Your task to perform on an android device: open app "Upside-Cash back on gas & food" (install if not already installed), go to login, and select forgot password Image 0: 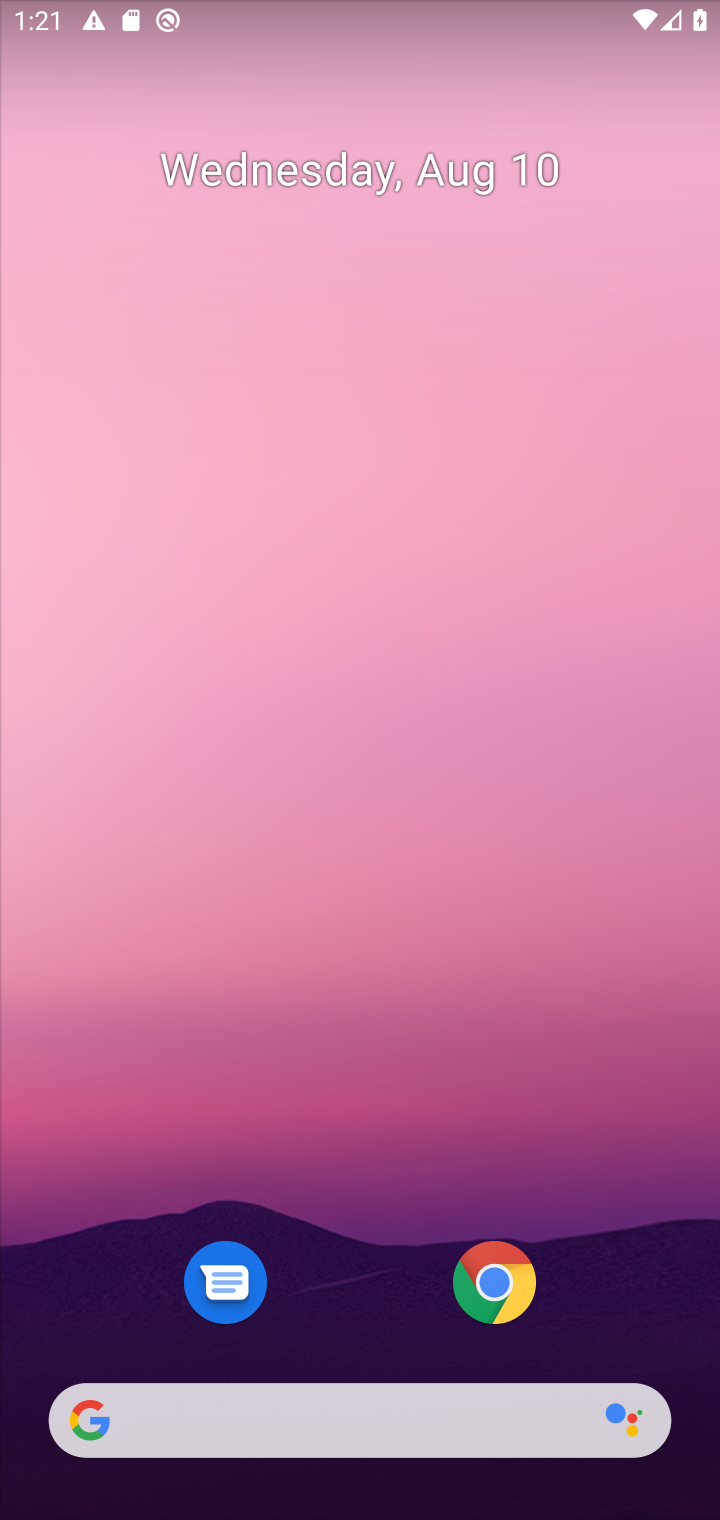
Step 0: drag from (340, 770) to (277, 183)
Your task to perform on an android device: open app "Upside-Cash back on gas & food" (install if not already installed), go to login, and select forgot password Image 1: 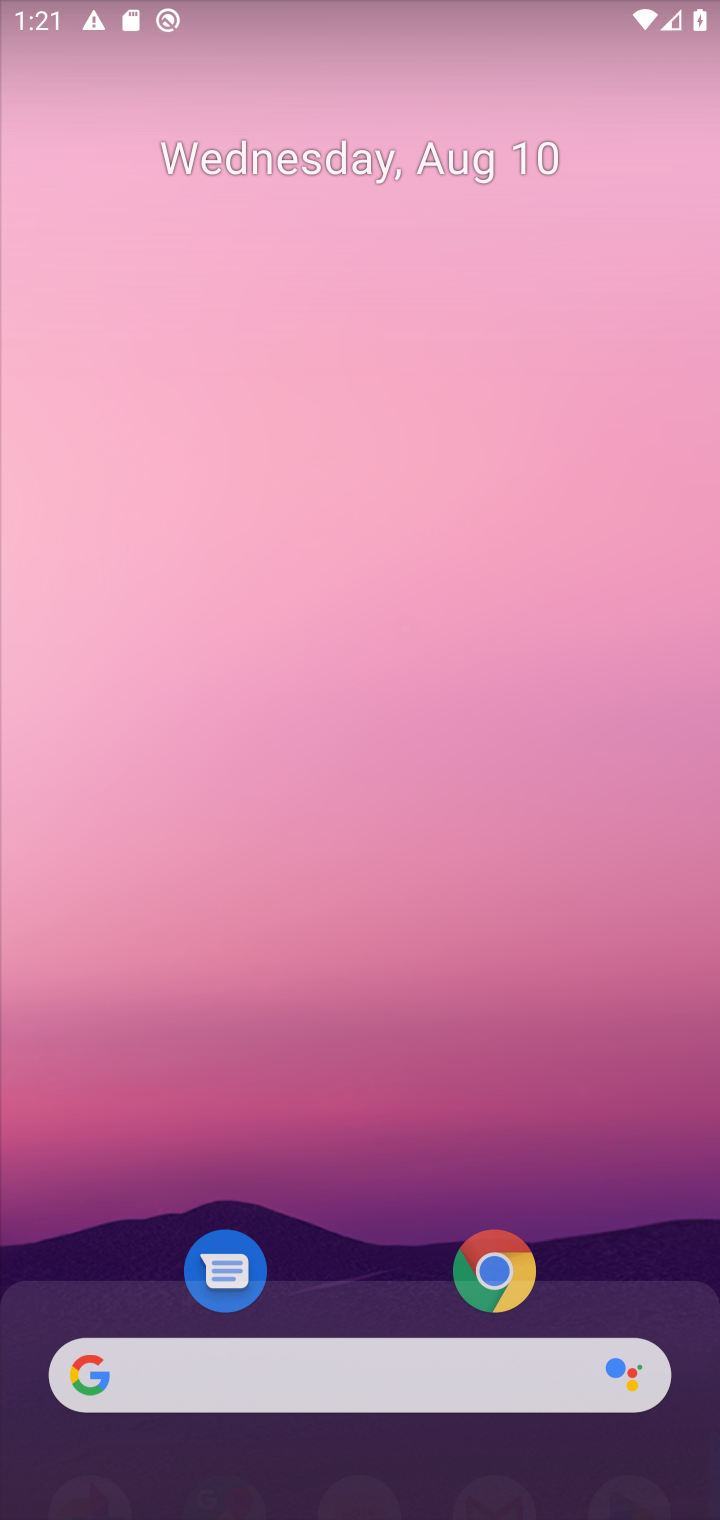
Step 1: drag from (364, 1320) to (121, 20)
Your task to perform on an android device: open app "Upside-Cash back on gas & food" (install if not already installed), go to login, and select forgot password Image 2: 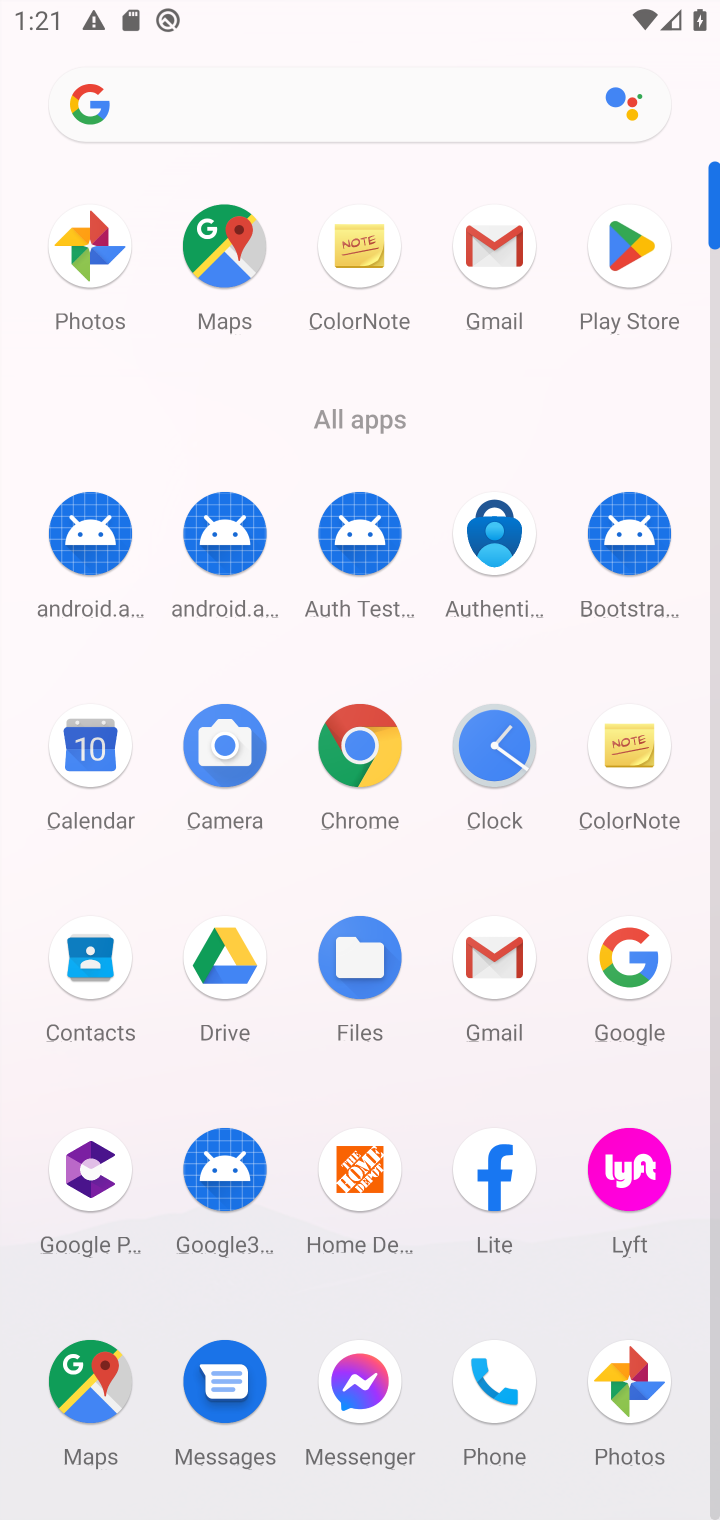
Step 2: drag from (282, 1320) to (269, 227)
Your task to perform on an android device: open app "Upside-Cash back on gas & food" (install if not already installed), go to login, and select forgot password Image 3: 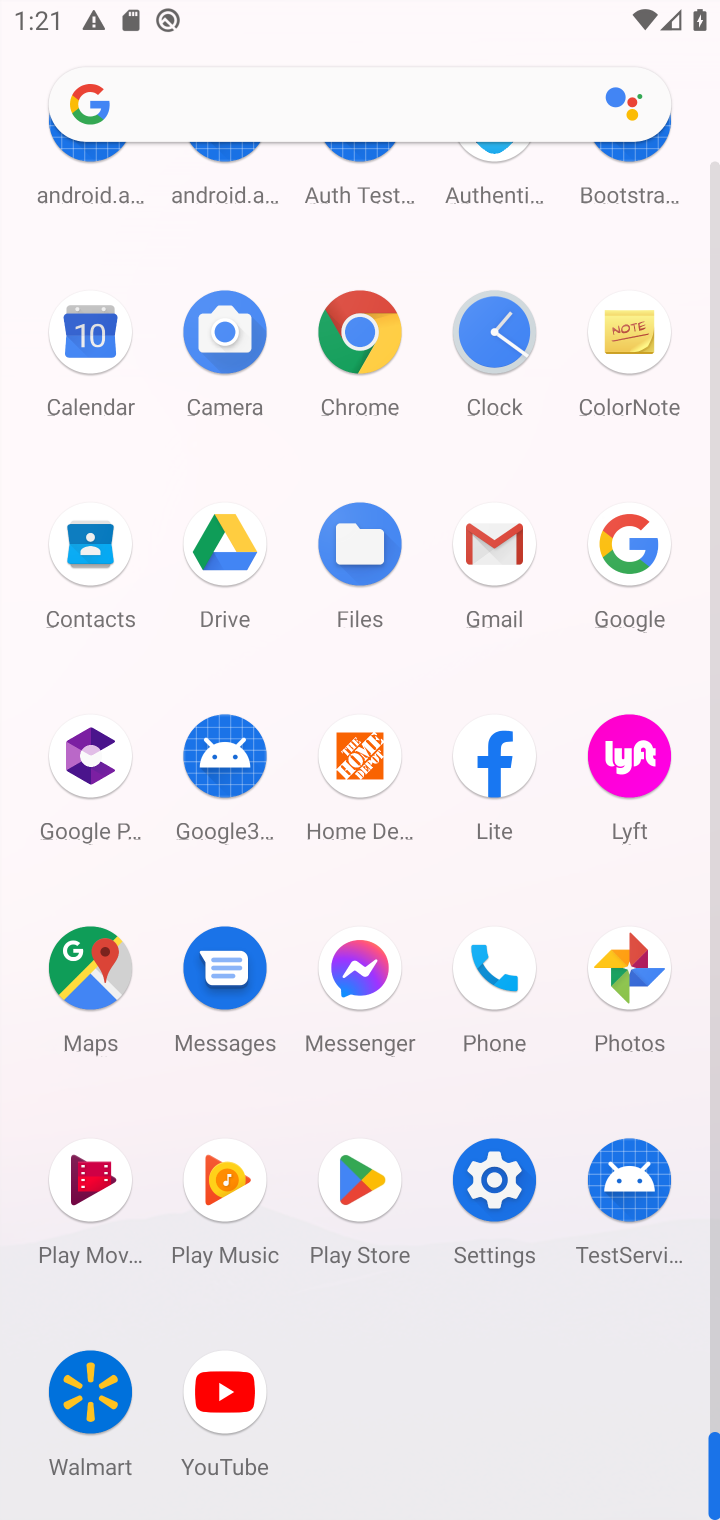
Step 3: click (366, 1176)
Your task to perform on an android device: open app "Upside-Cash back on gas & food" (install if not already installed), go to login, and select forgot password Image 4: 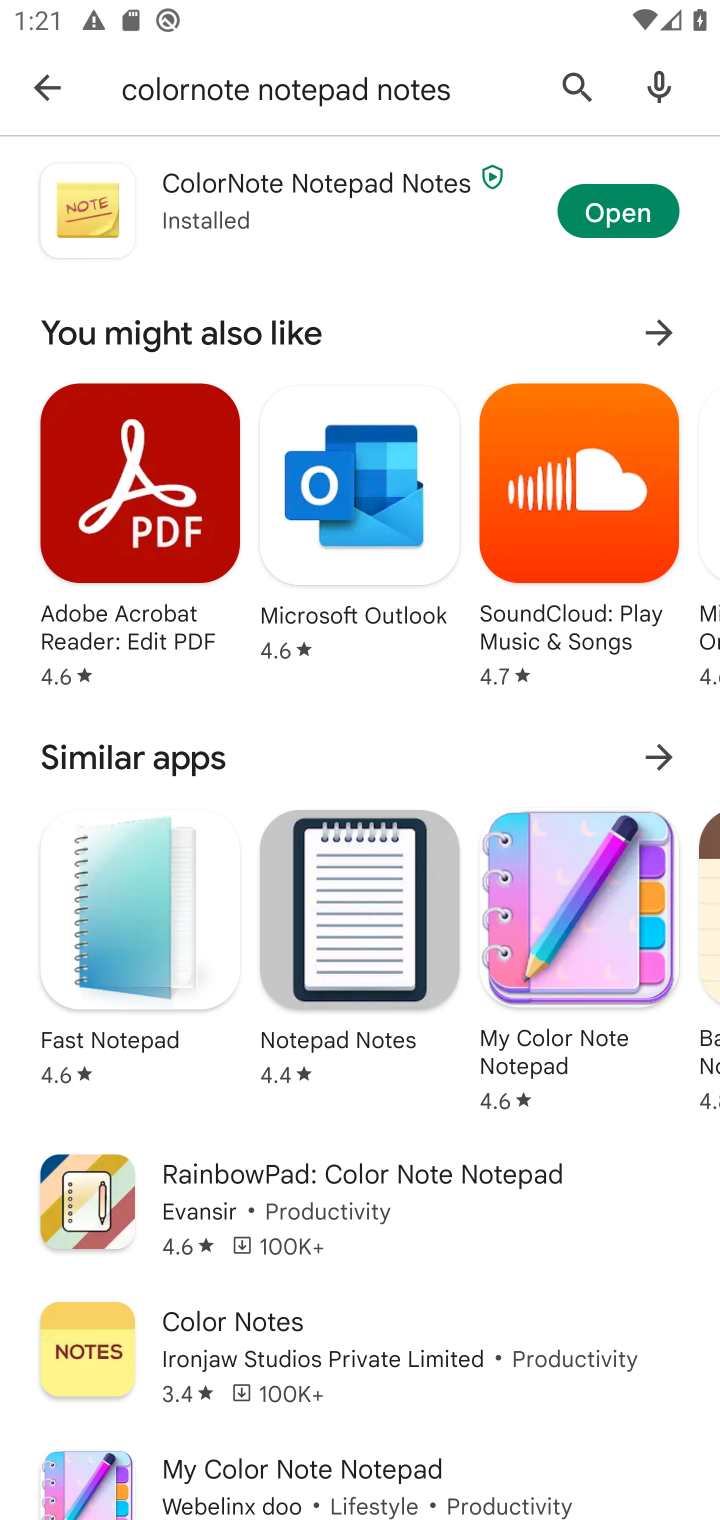
Step 4: click (59, 75)
Your task to perform on an android device: open app "Upside-Cash back on gas & food" (install if not already installed), go to login, and select forgot password Image 5: 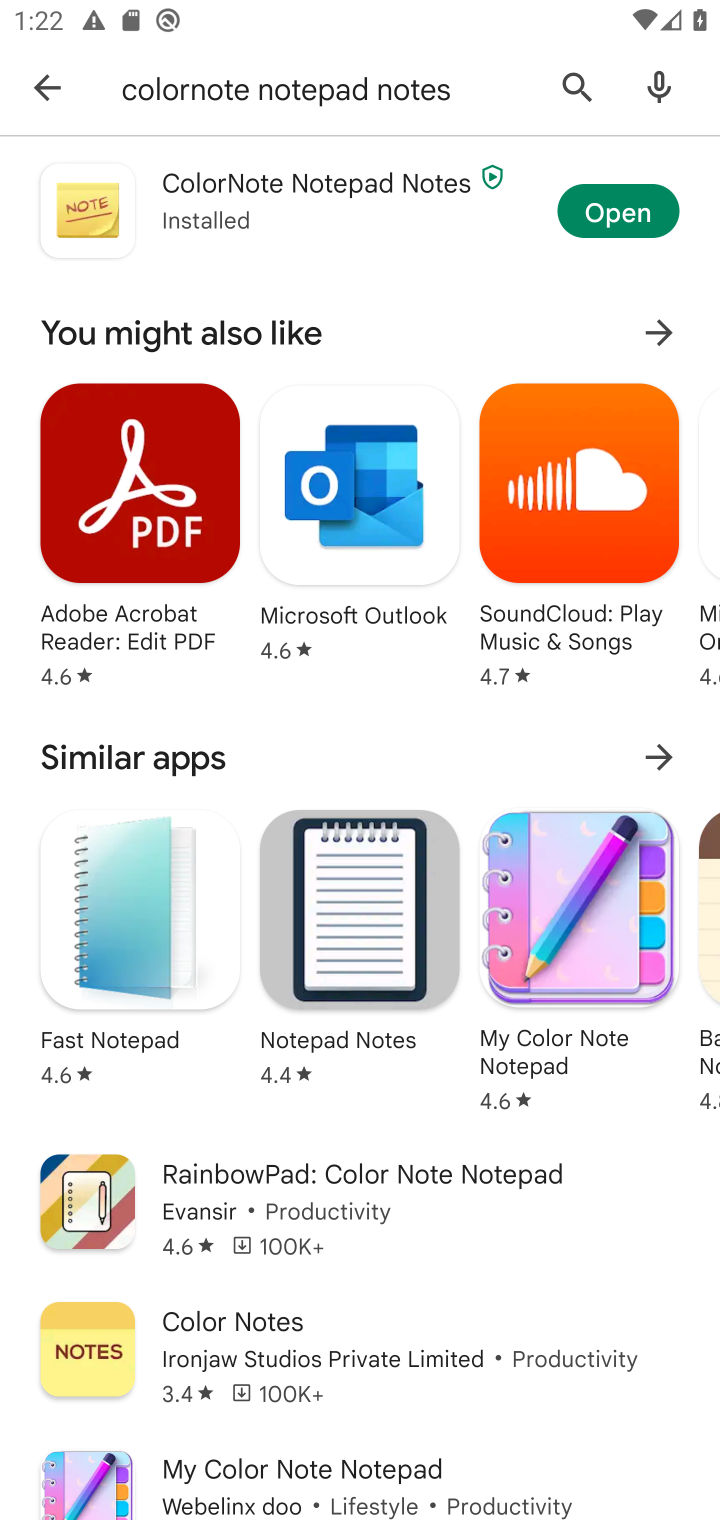
Step 5: click (562, 75)
Your task to perform on an android device: open app "Upside-Cash back on gas & food" (install if not already installed), go to login, and select forgot password Image 6: 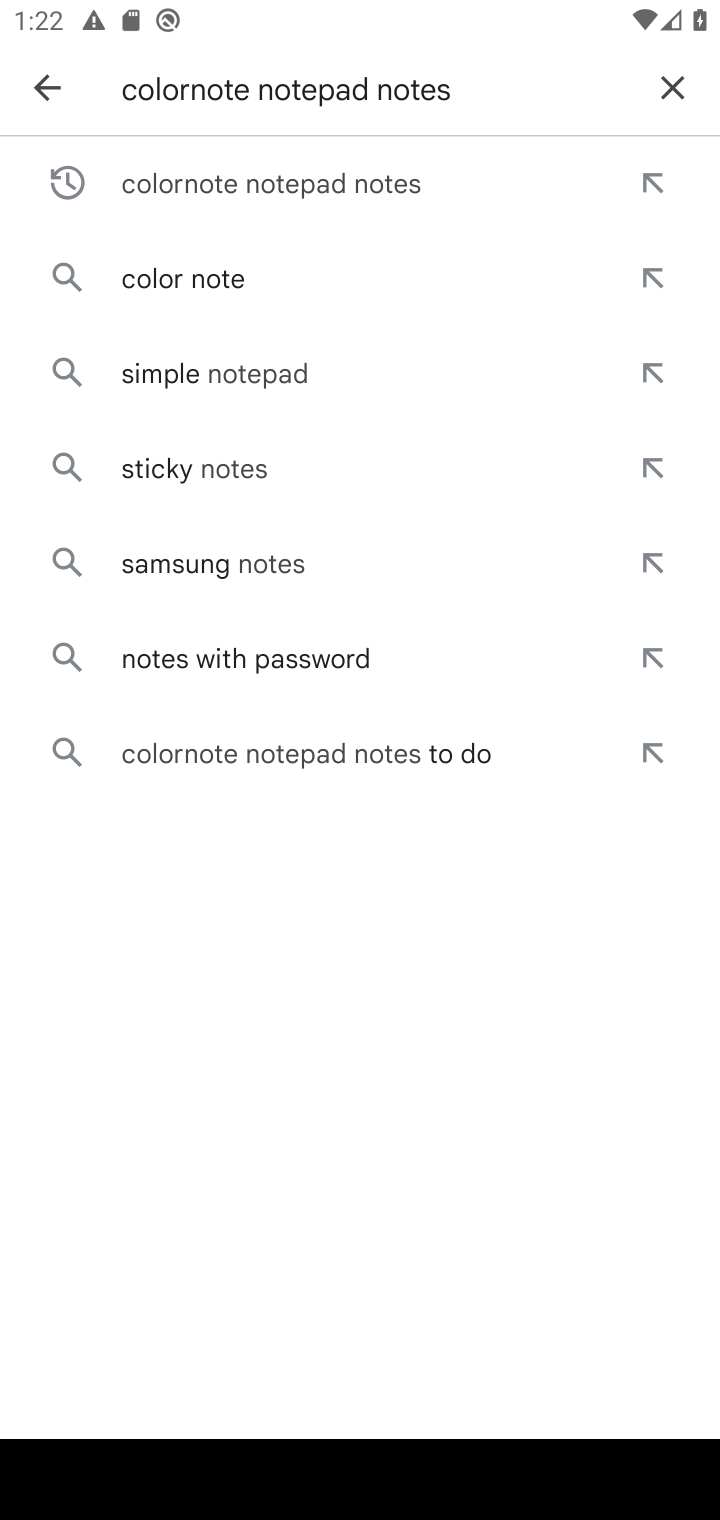
Step 6: click (658, 86)
Your task to perform on an android device: open app "Upside-Cash back on gas & food" (install if not already installed), go to login, and select forgot password Image 7: 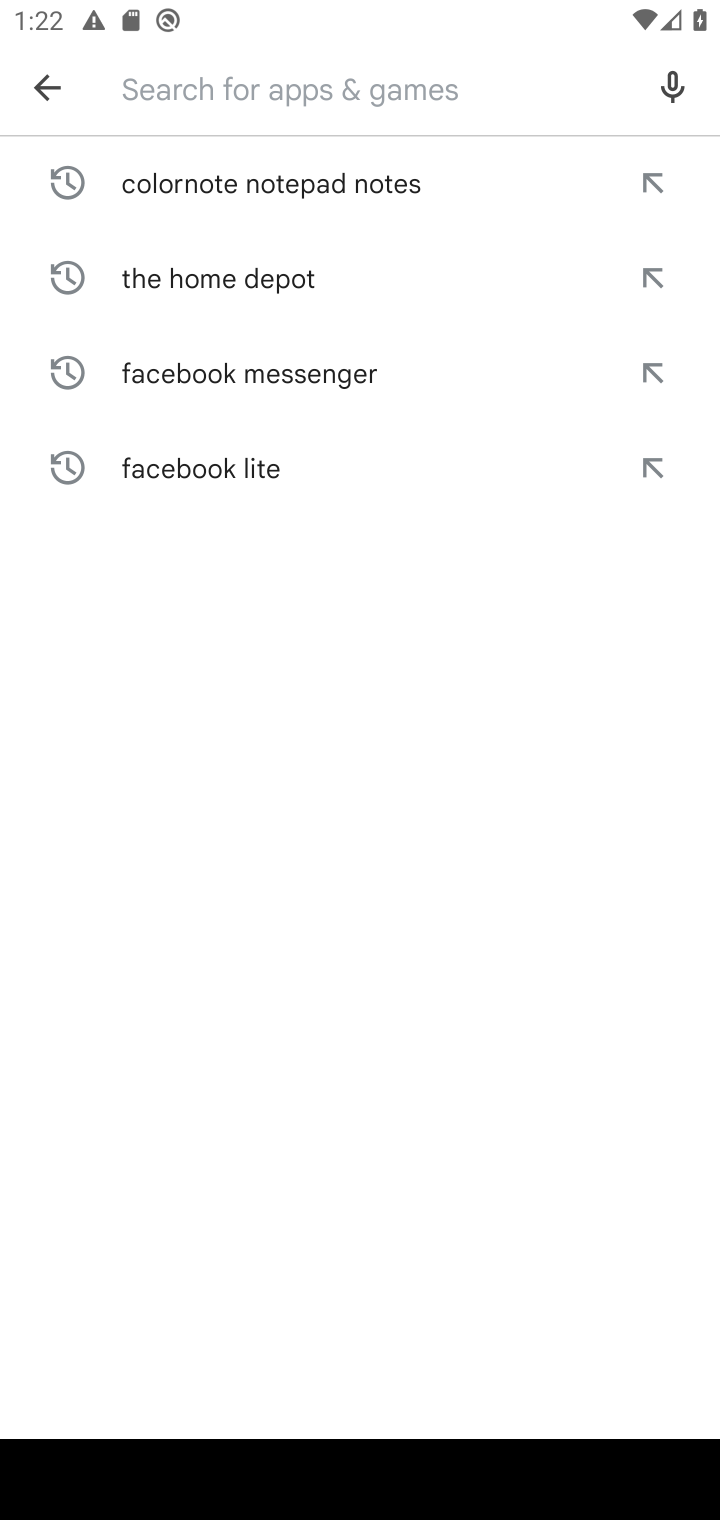
Step 7: type "Upside-Cash back on gas & food"
Your task to perform on an android device: open app "Upside-Cash back on gas & food" (install if not already installed), go to login, and select forgot password Image 8: 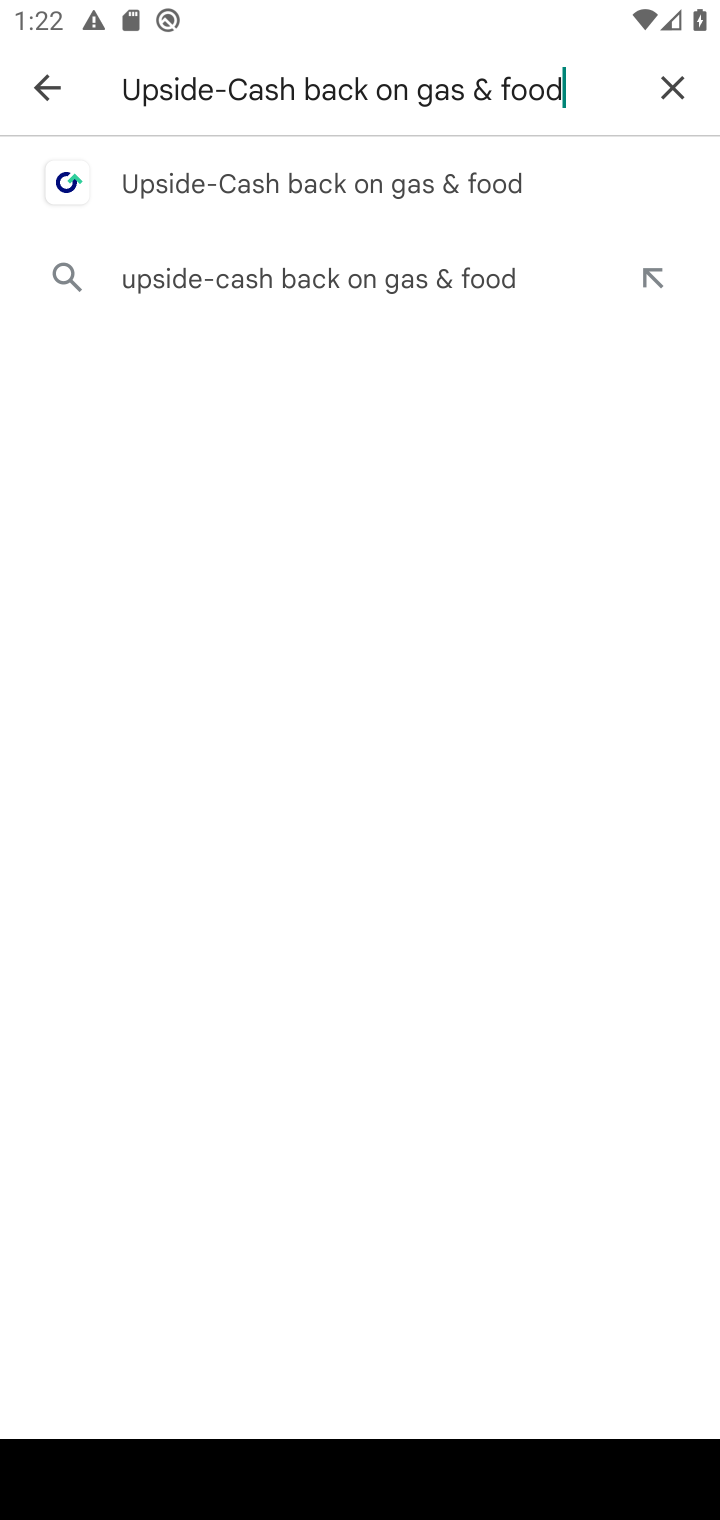
Step 8: click (211, 171)
Your task to perform on an android device: open app "Upside-Cash back on gas & food" (install if not already installed), go to login, and select forgot password Image 9: 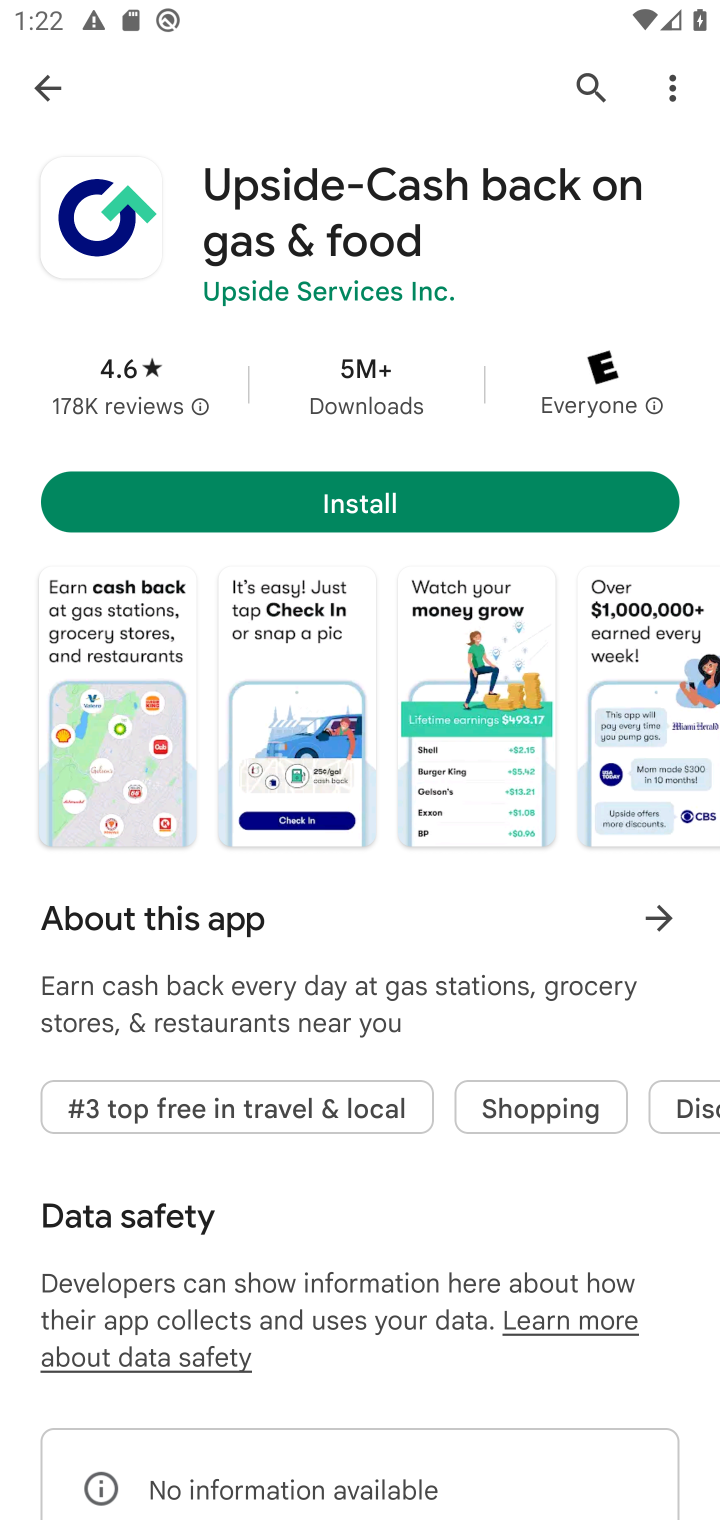
Step 9: click (250, 460)
Your task to perform on an android device: open app "Upside-Cash back on gas & food" (install if not already installed), go to login, and select forgot password Image 10: 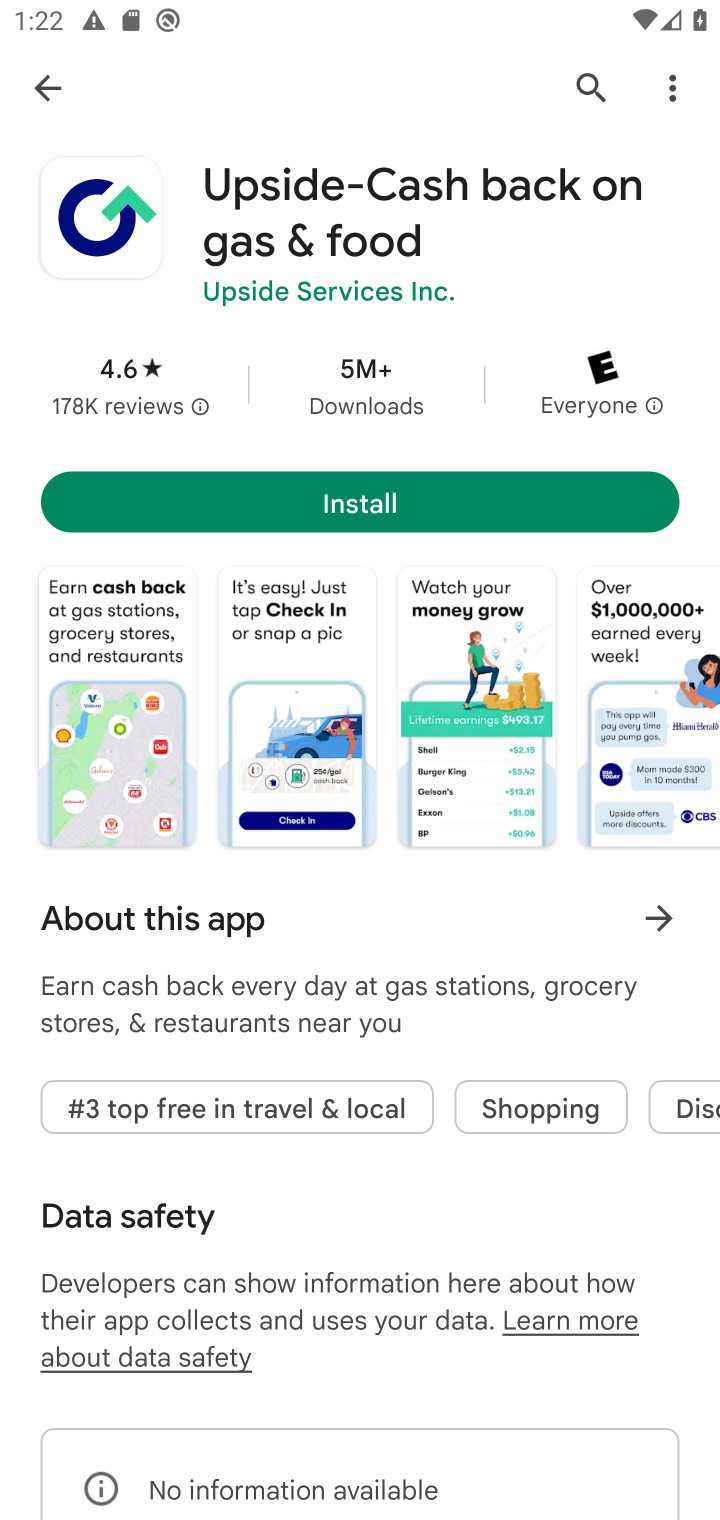
Step 10: click (257, 478)
Your task to perform on an android device: open app "Upside-Cash back on gas & food" (install if not already installed), go to login, and select forgot password Image 11: 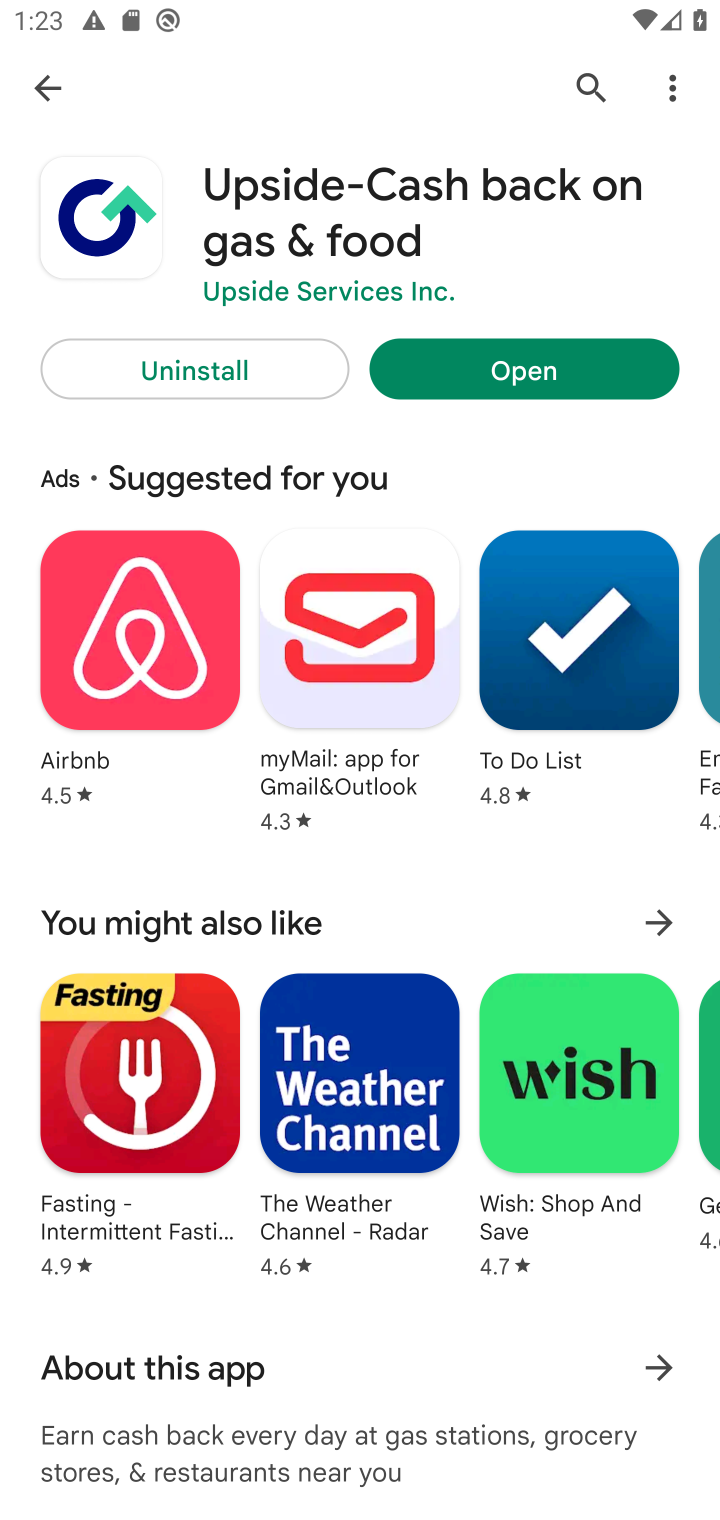
Step 11: click (480, 365)
Your task to perform on an android device: open app "Upside-Cash back on gas & food" (install if not already installed), go to login, and select forgot password Image 12: 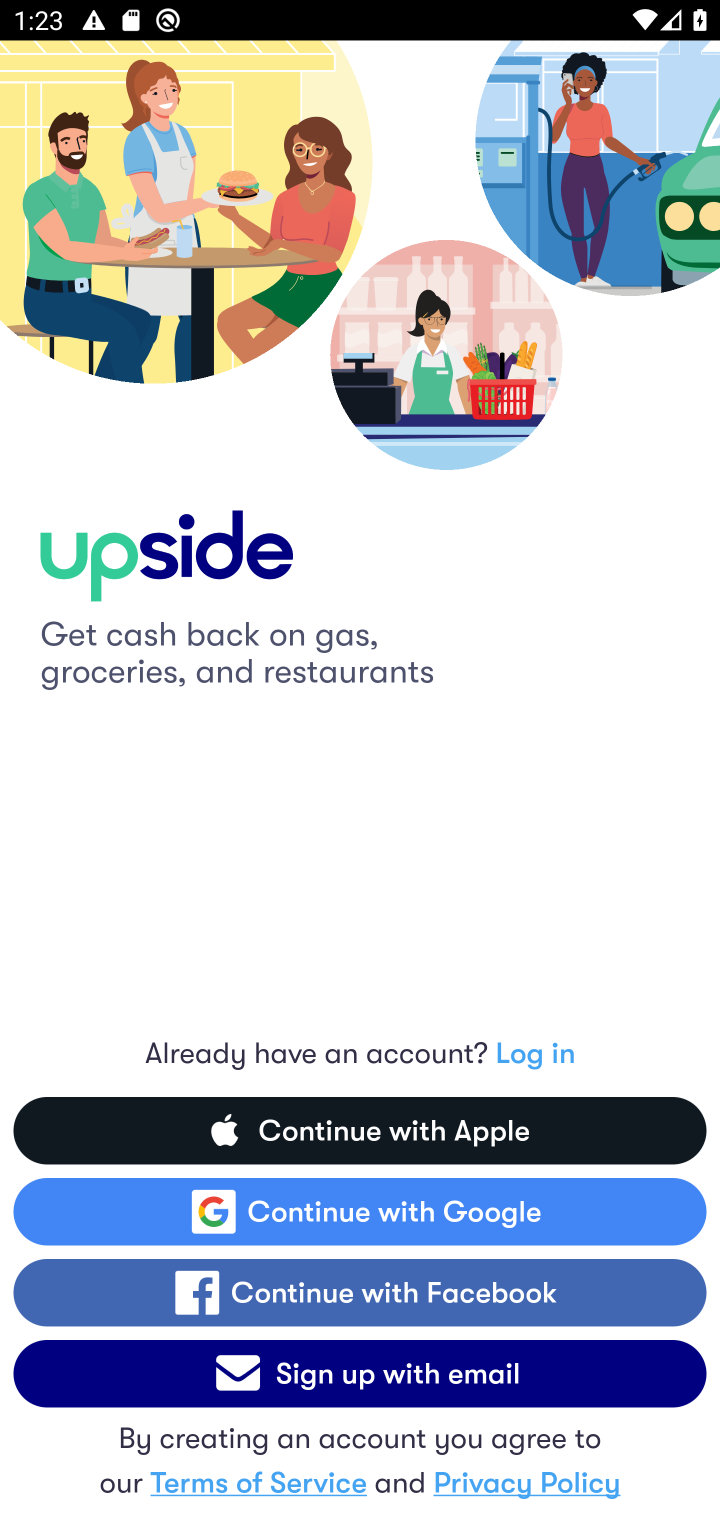
Step 12: drag from (454, 1187) to (422, 349)
Your task to perform on an android device: open app "Upside-Cash back on gas & food" (install if not already installed), go to login, and select forgot password Image 13: 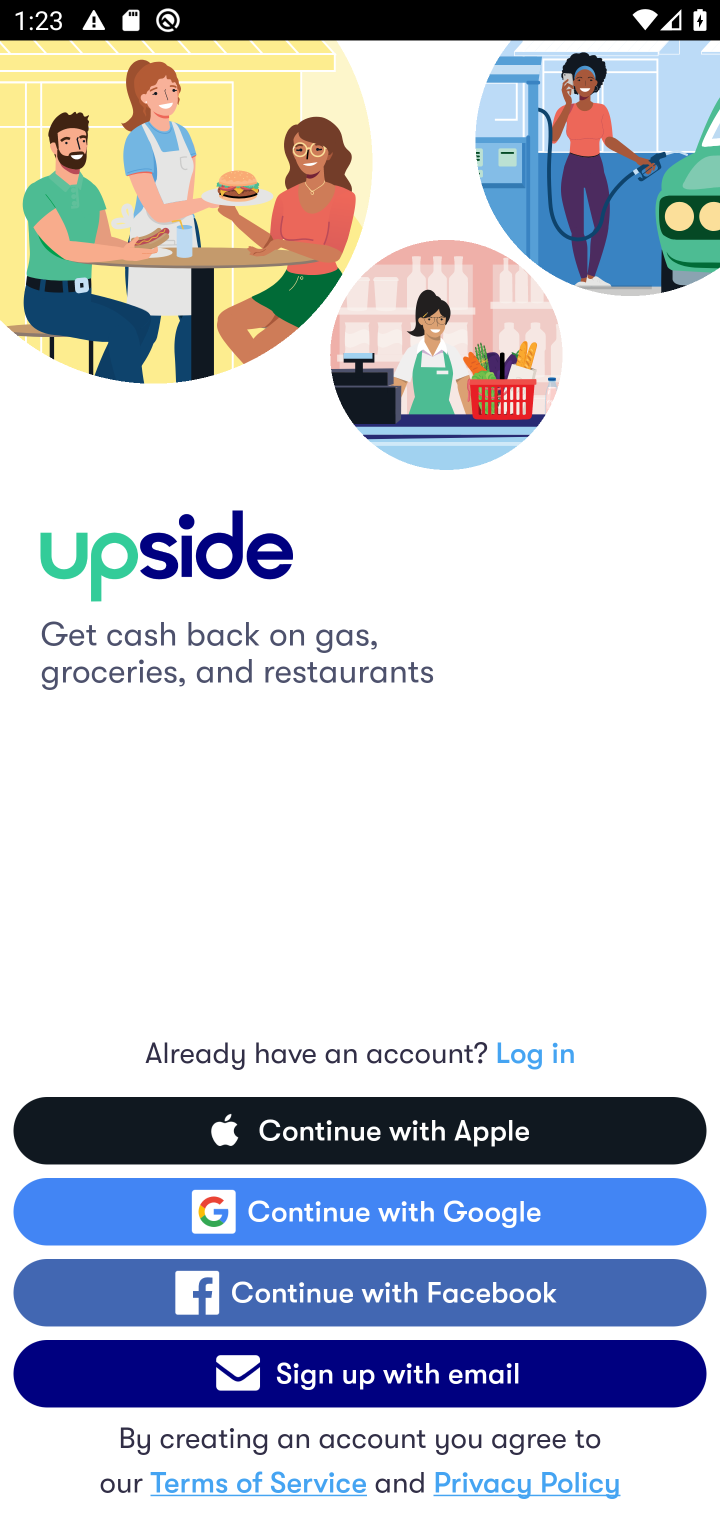
Step 13: click (542, 1047)
Your task to perform on an android device: open app "Upside-Cash back on gas & food" (install if not already installed), go to login, and select forgot password Image 14: 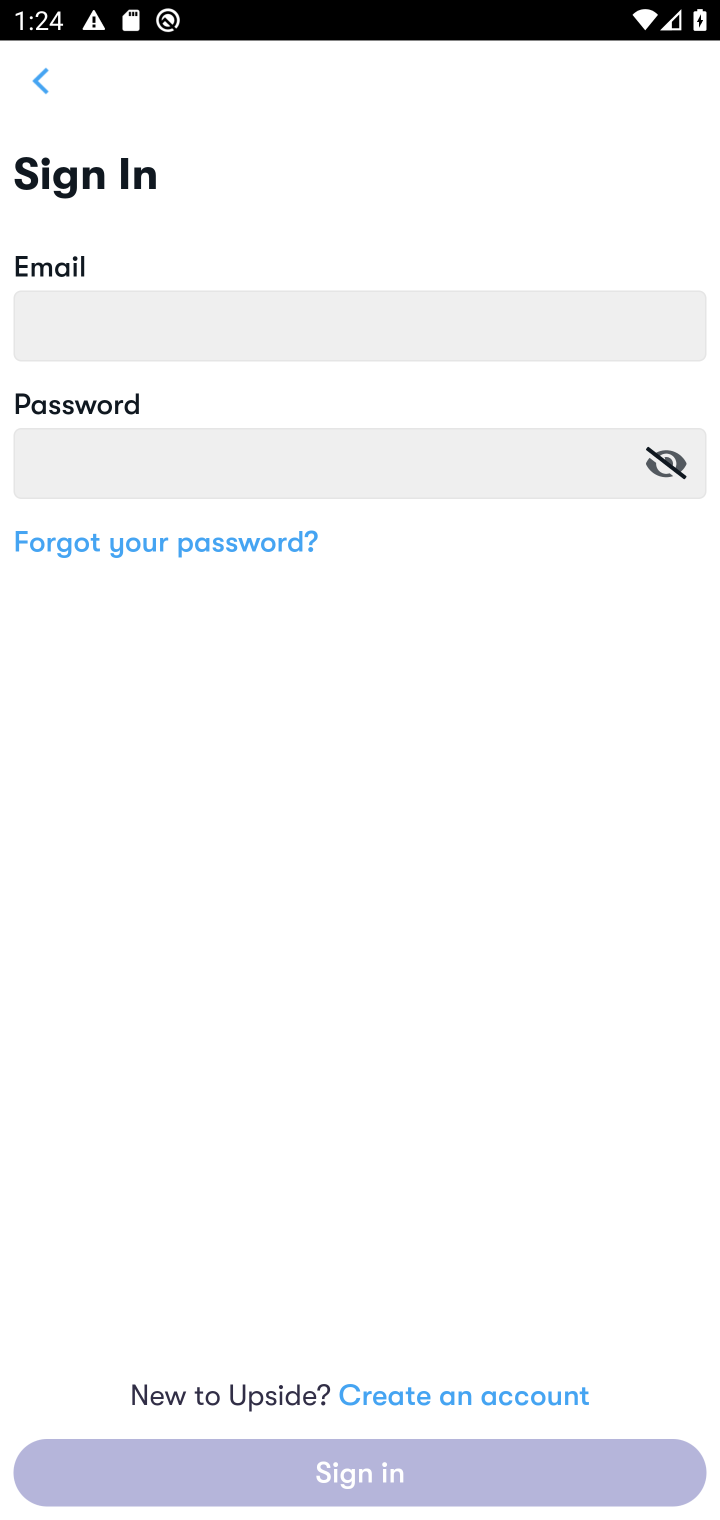
Step 14: click (109, 537)
Your task to perform on an android device: open app "Upside-Cash back on gas & food" (install if not already installed), go to login, and select forgot password Image 15: 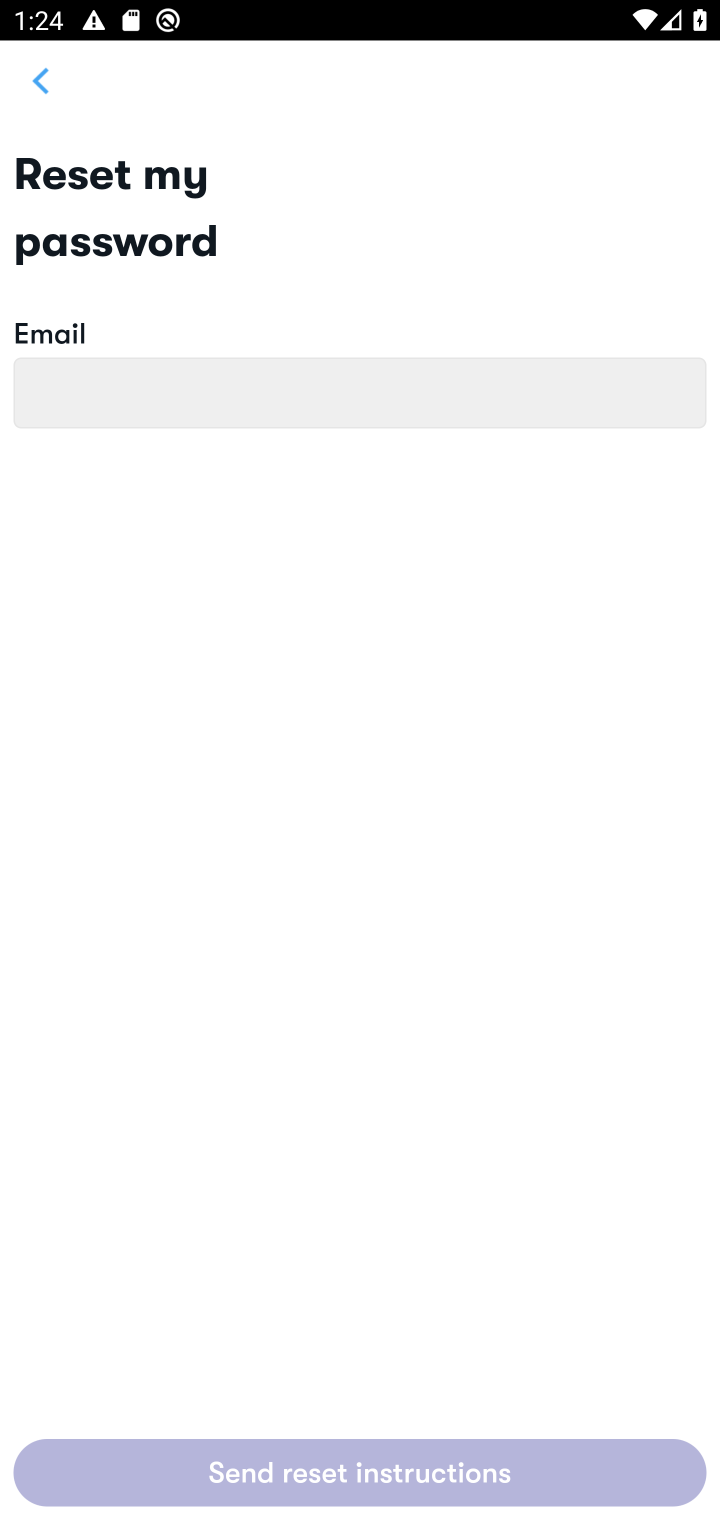
Step 15: task complete